Your task to perform on an android device: Go to ESPN.com Image 0: 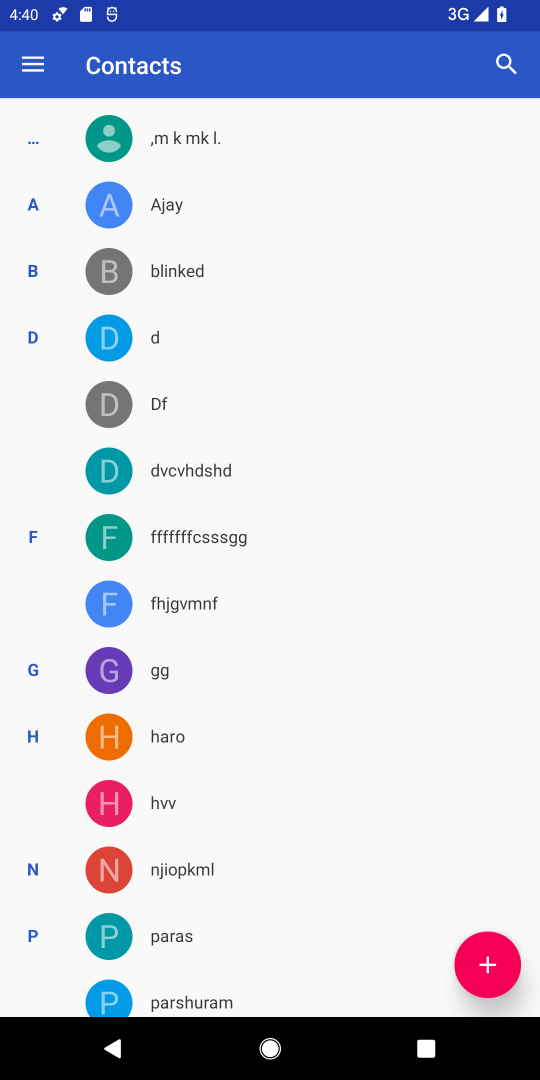
Step 0: press home button
Your task to perform on an android device: Go to ESPN.com Image 1: 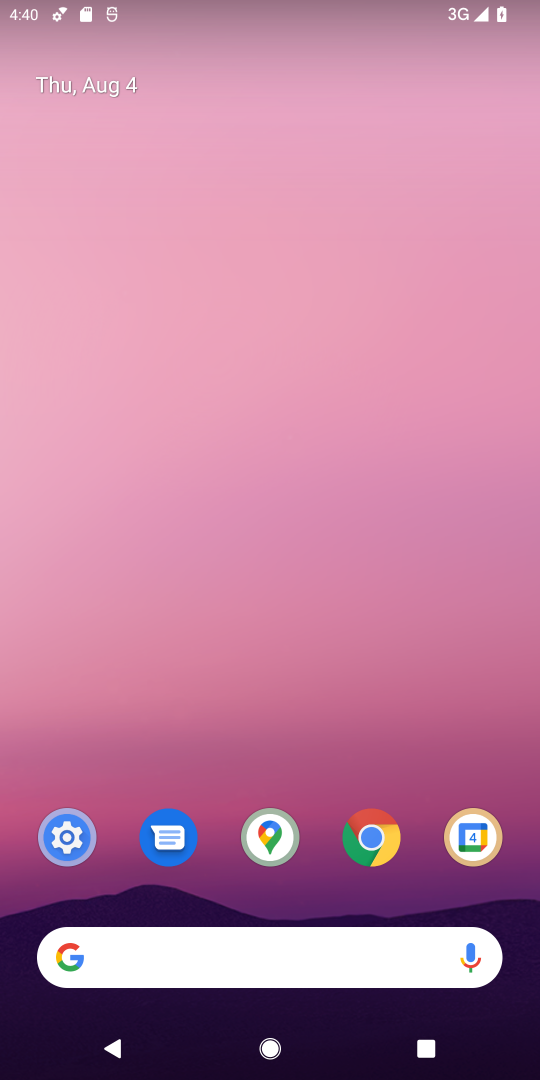
Step 1: click (382, 838)
Your task to perform on an android device: Go to ESPN.com Image 2: 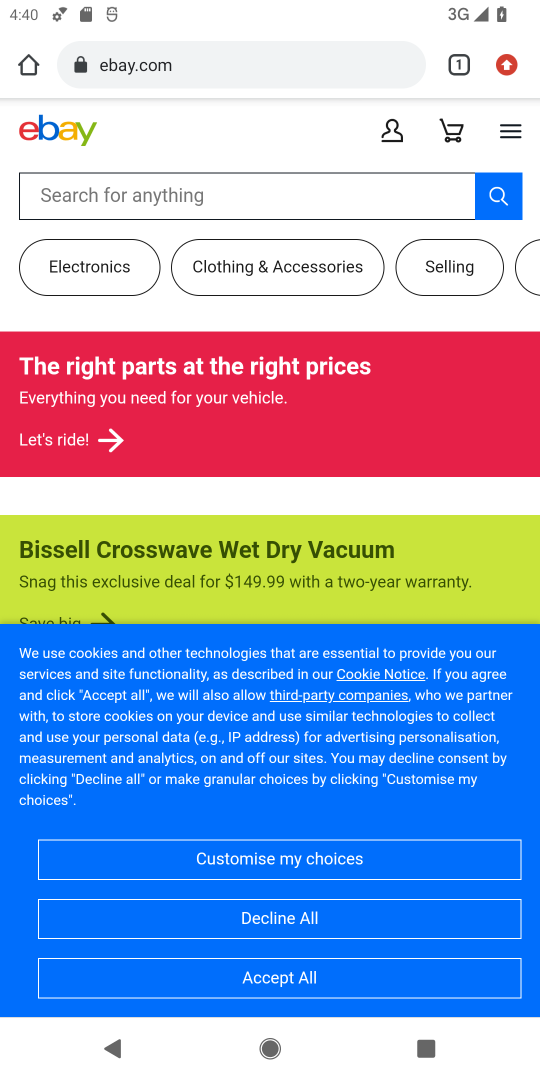
Step 2: click (157, 66)
Your task to perform on an android device: Go to ESPN.com Image 3: 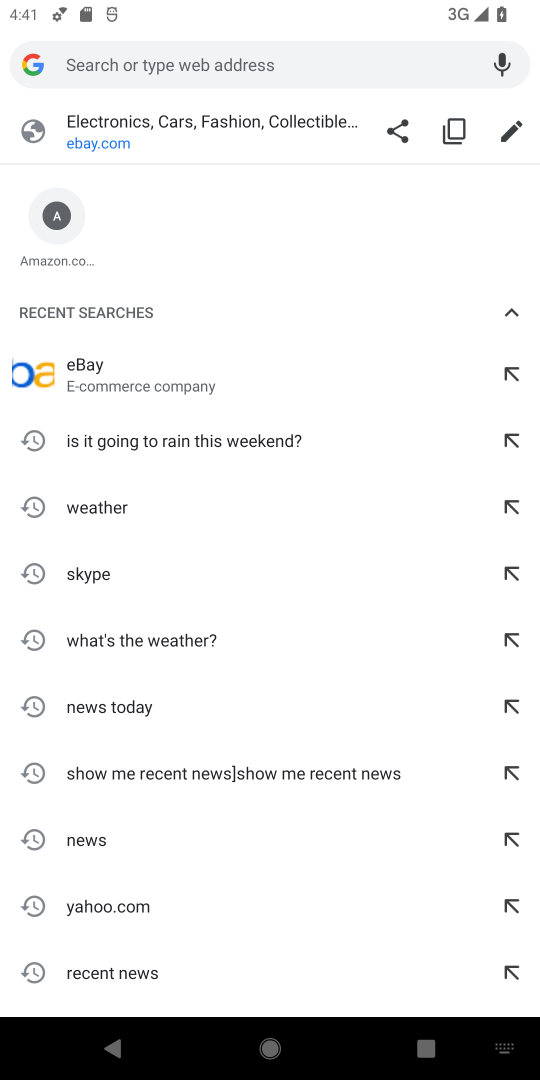
Step 3: type "Espn.com"
Your task to perform on an android device: Go to ESPN.com Image 4: 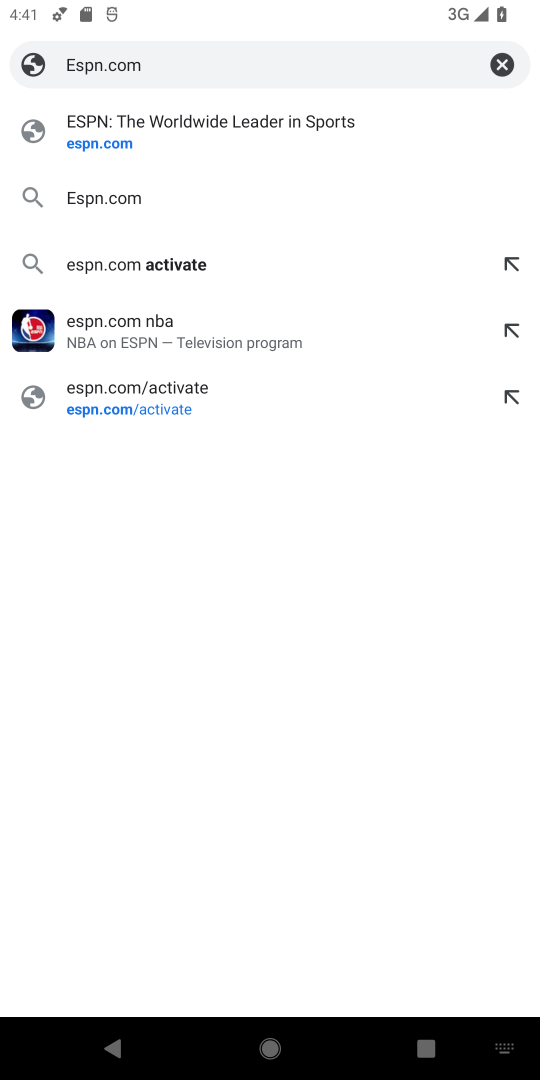
Step 4: click (312, 124)
Your task to perform on an android device: Go to ESPN.com Image 5: 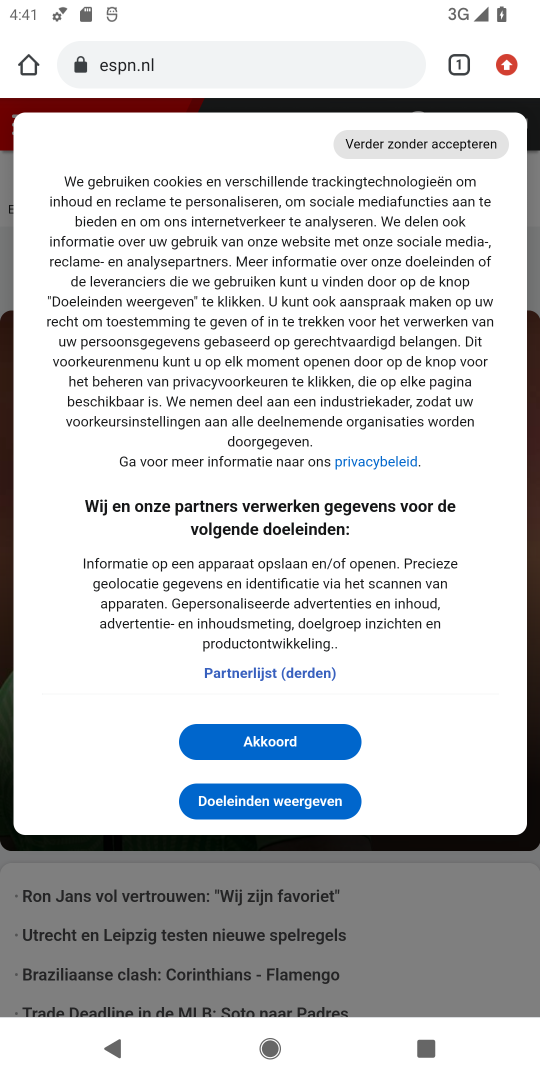
Step 5: task complete